Your task to perform on an android device: Show me the alarms in the clock app Image 0: 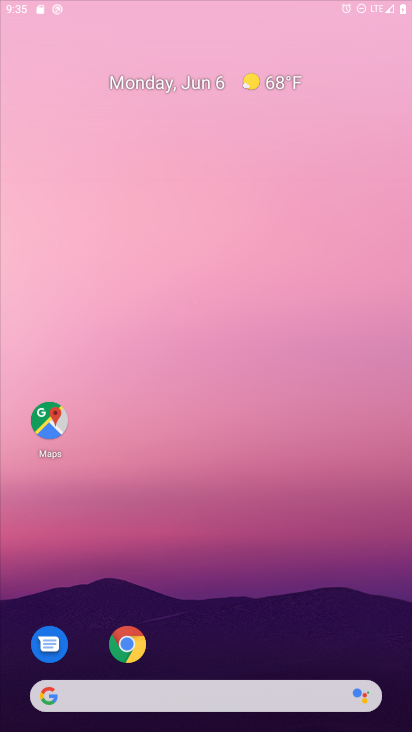
Step 0: drag from (182, 716) to (195, 189)
Your task to perform on an android device: Show me the alarms in the clock app Image 1: 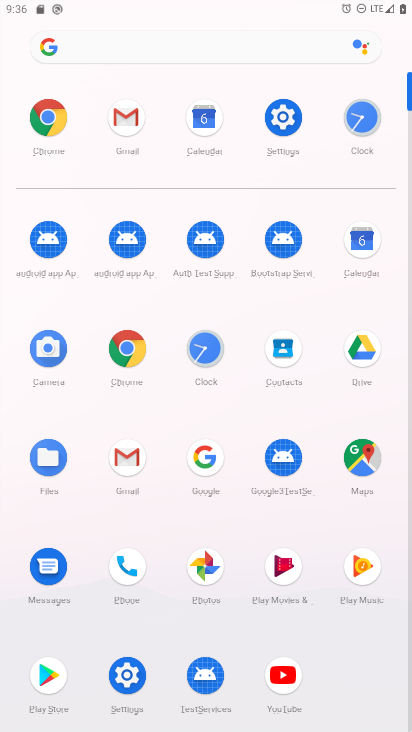
Step 1: click (195, 361)
Your task to perform on an android device: Show me the alarms in the clock app Image 2: 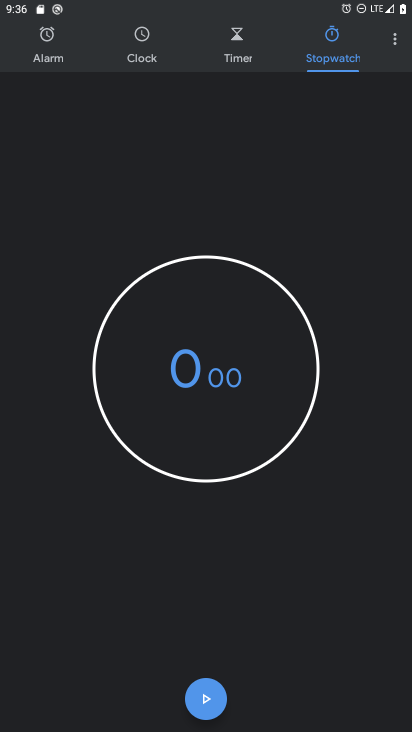
Step 2: click (36, 39)
Your task to perform on an android device: Show me the alarms in the clock app Image 3: 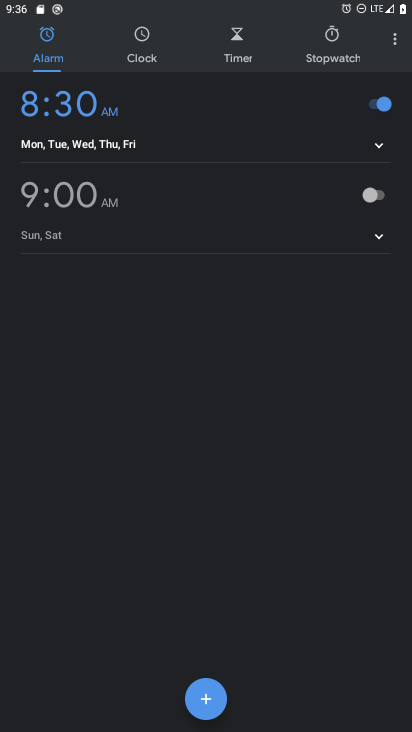
Step 3: task complete